Your task to perform on an android device: Open privacy settings Image 0: 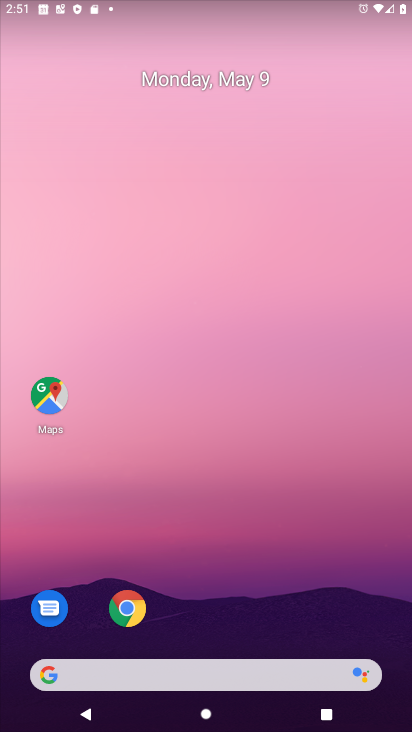
Step 0: drag from (201, 630) to (242, 140)
Your task to perform on an android device: Open privacy settings Image 1: 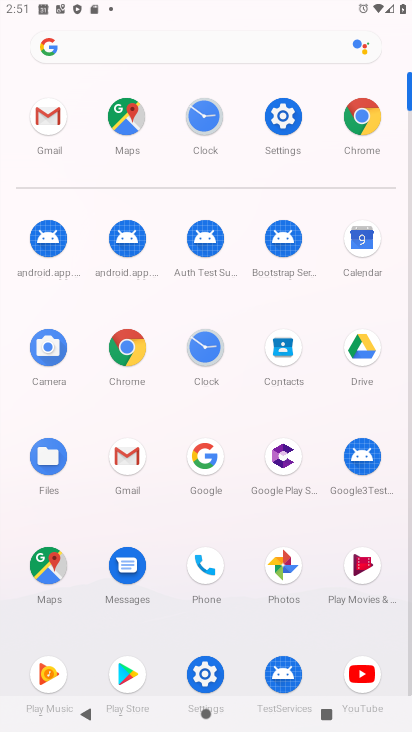
Step 1: click (300, 105)
Your task to perform on an android device: Open privacy settings Image 2: 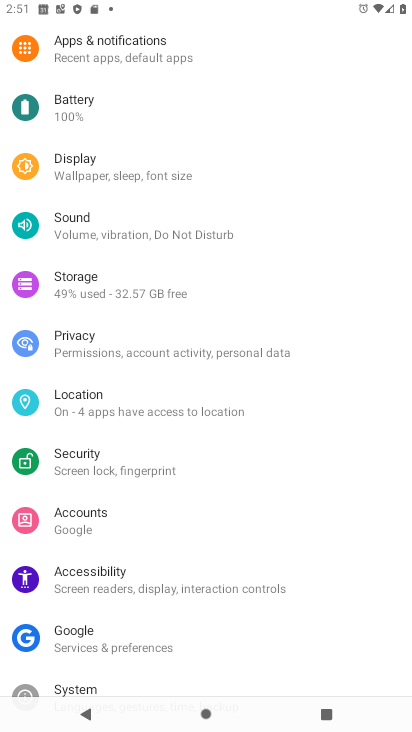
Step 2: click (130, 366)
Your task to perform on an android device: Open privacy settings Image 3: 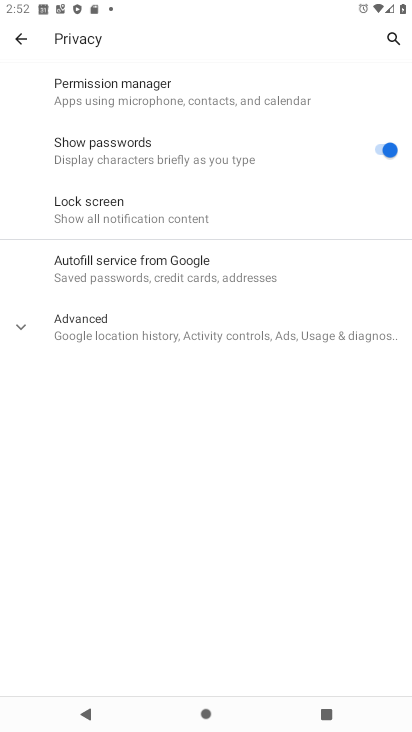
Step 3: task complete